Your task to perform on an android device: Open accessibility settings Image 0: 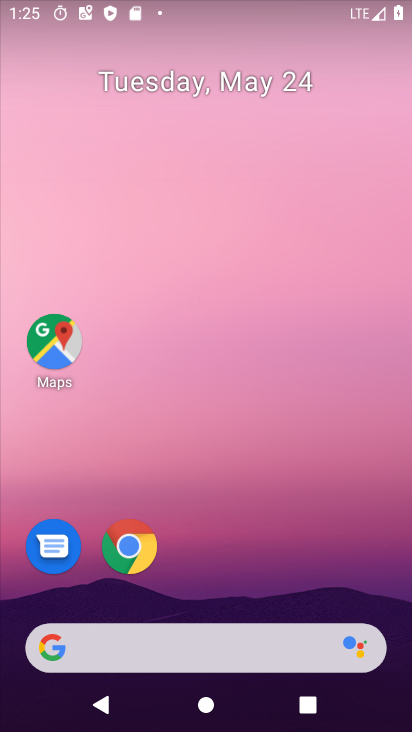
Step 0: drag from (184, 598) to (242, 179)
Your task to perform on an android device: Open accessibility settings Image 1: 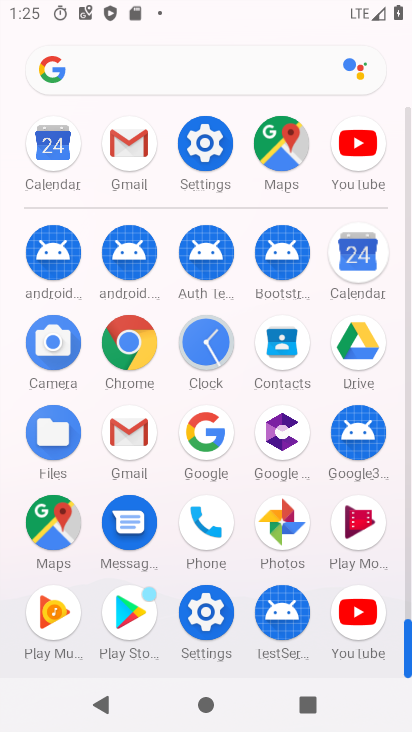
Step 1: click (186, 149)
Your task to perform on an android device: Open accessibility settings Image 2: 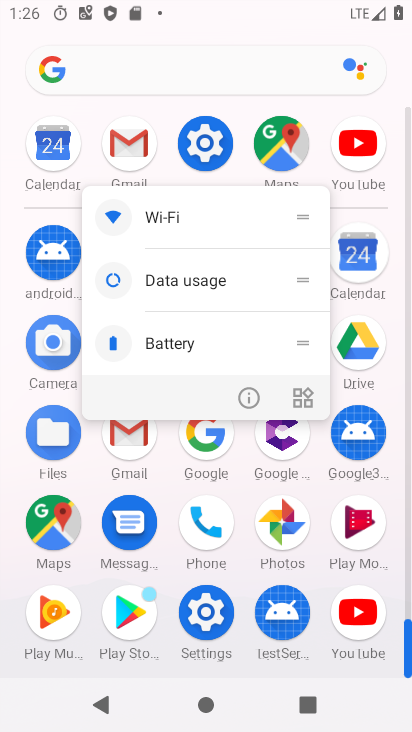
Step 2: click (246, 398)
Your task to perform on an android device: Open accessibility settings Image 3: 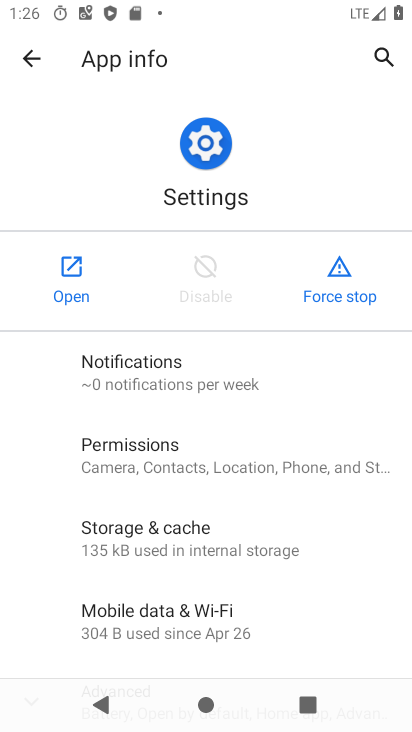
Step 3: click (75, 263)
Your task to perform on an android device: Open accessibility settings Image 4: 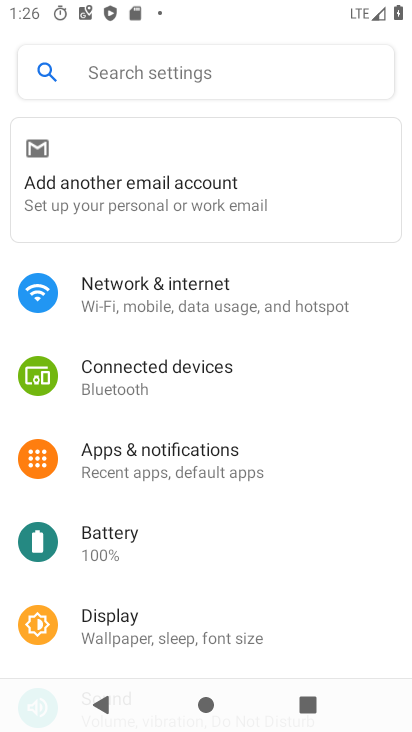
Step 4: drag from (179, 599) to (318, 45)
Your task to perform on an android device: Open accessibility settings Image 5: 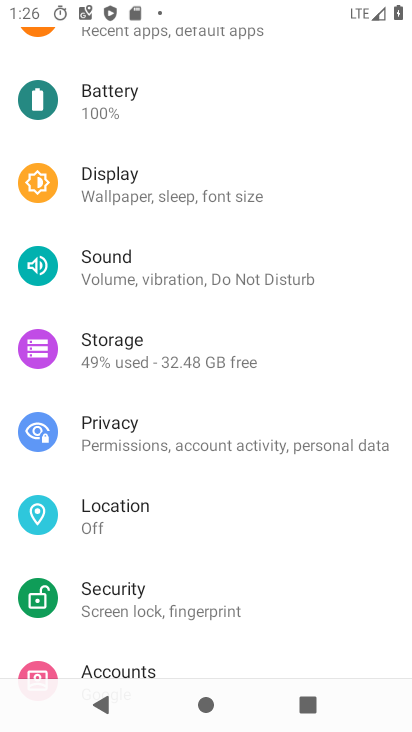
Step 5: drag from (185, 613) to (336, 8)
Your task to perform on an android device: Open accessibility settings Image 6: 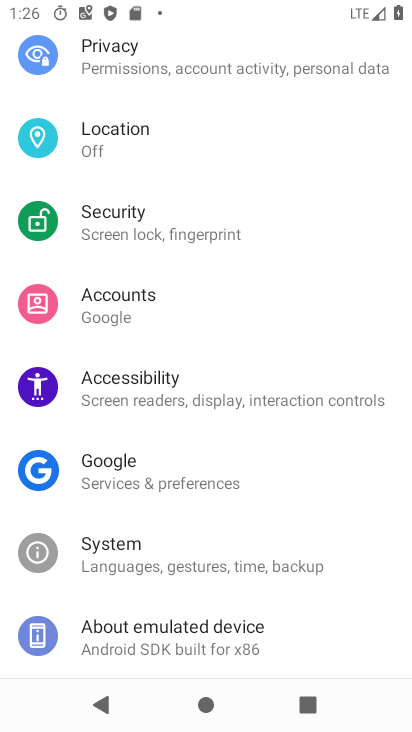
Step 6: click (165, 411)
Your task to perform on an android device: Open accessibility settings Image 7: 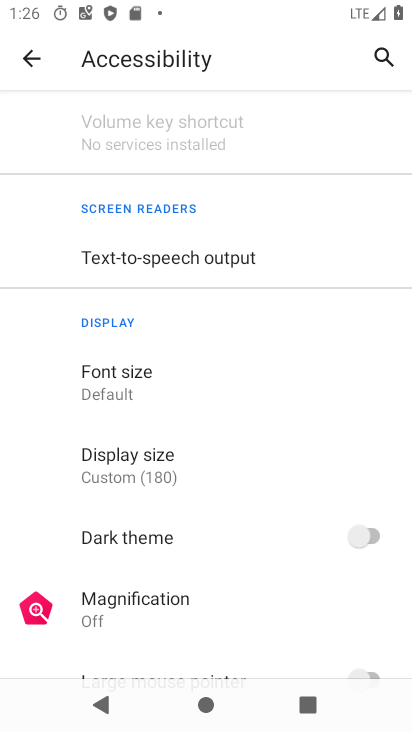
Step 7: task complete